Your task to perform on an android device: change keyboard looks Image 0: 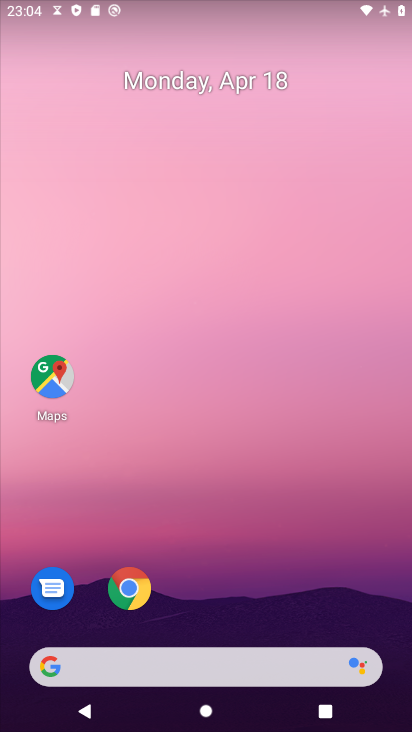
Step 0: drag from (310, 519) to (309, 51)
Your task to perform on an android device: change keyboard looks Image 1: 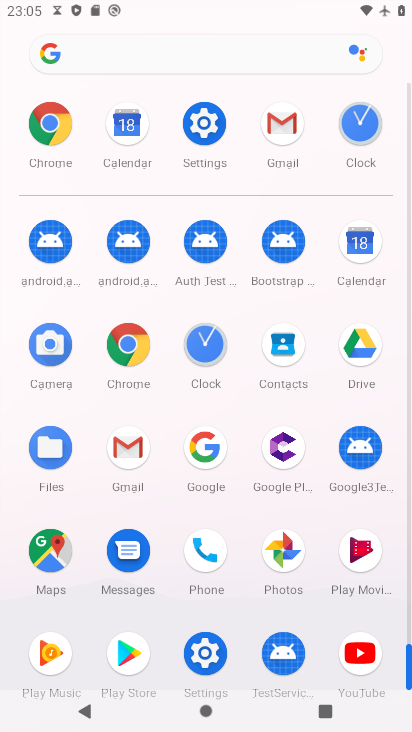
Step 1: drag from (6, 464) to (5, 194)
Your task to perform on an android device: change keyboard looks Image 2: 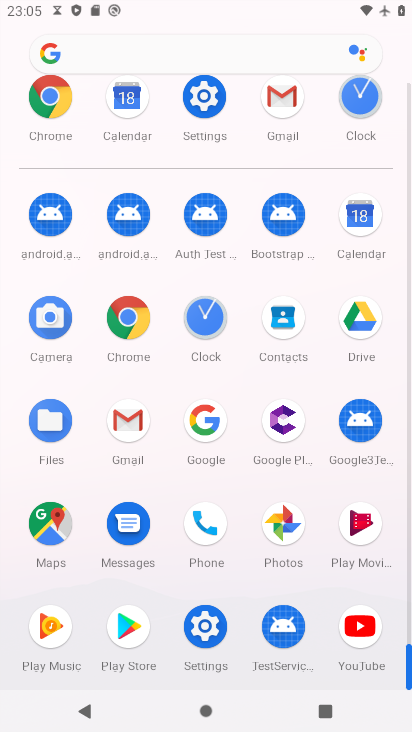
Step 2: drag from (8, 375) to (13, 172)
Your task to perform on an android device: change keyboard looks Image 3: 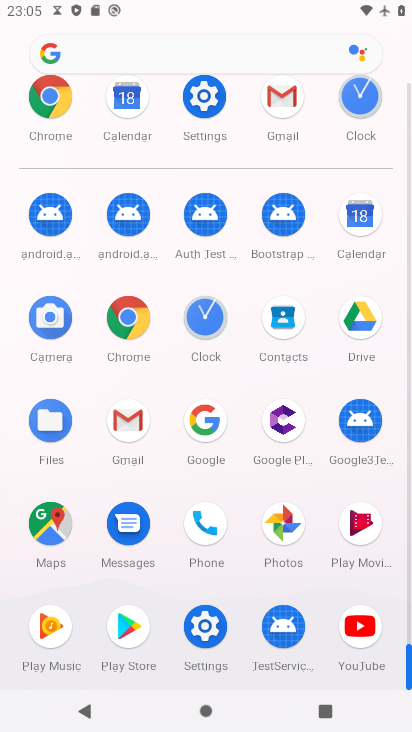
Step 3: drag from (17, 189) to (5, 377)
Your task to perform on an android device: change keyboard looks Image 4: 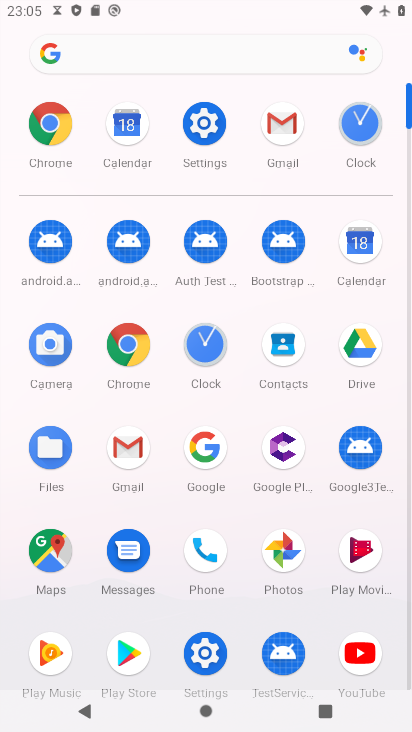
Step 4: drag from (21, 349) to (22, 165)
Your task to perform on an android device: change keyboard looks Image 5: 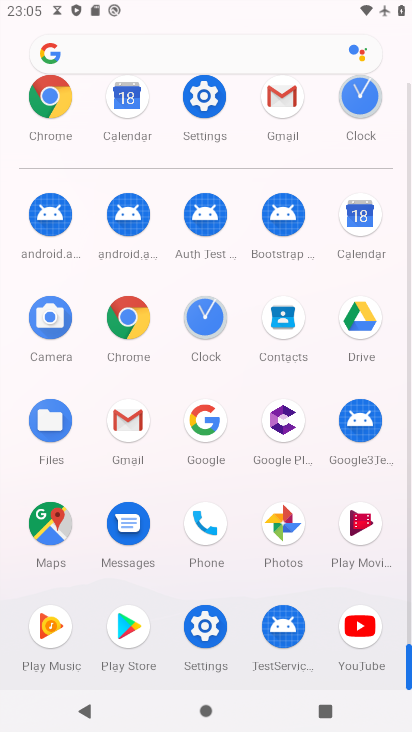
Step 5: drag from (7, 363) to (7, 140)
Your task to perform on an android device: change keyboard looks Image 6: 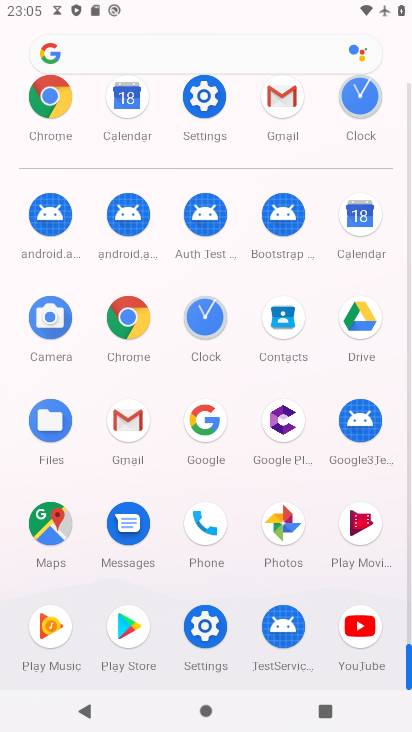
Step 6: drag from (16, 111) to (1, 392)
Your task to perform on an android device: change keyboard looks Image 7: 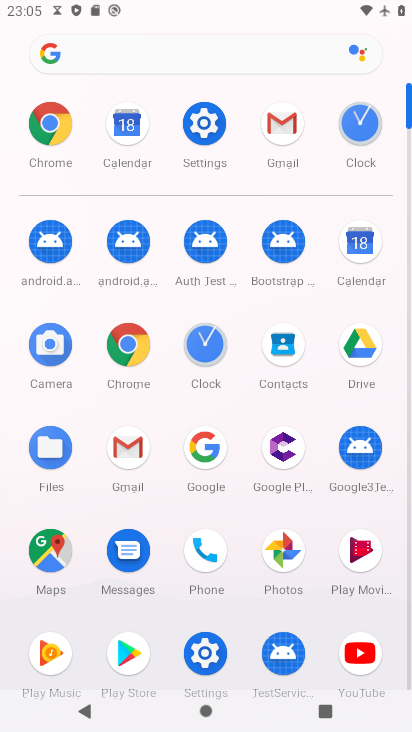
Step 7: click (202, 122)
Your task to perform on an android device: change keyboard looks Image 8: 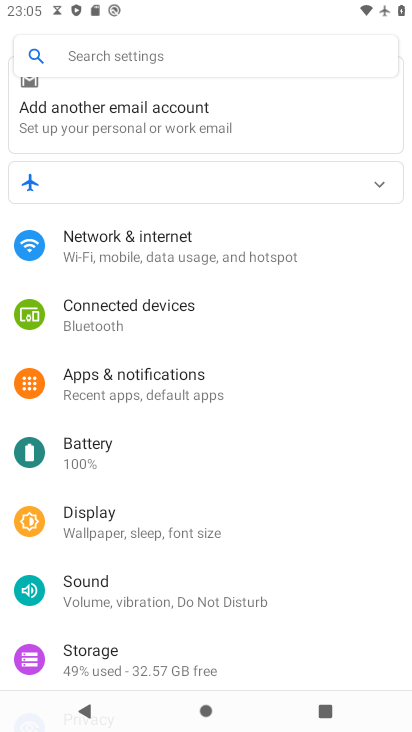
Step 8: drag from (216, 599) to (291, 150)
Your task to perform on an android device: change keyboard looks Image 9: 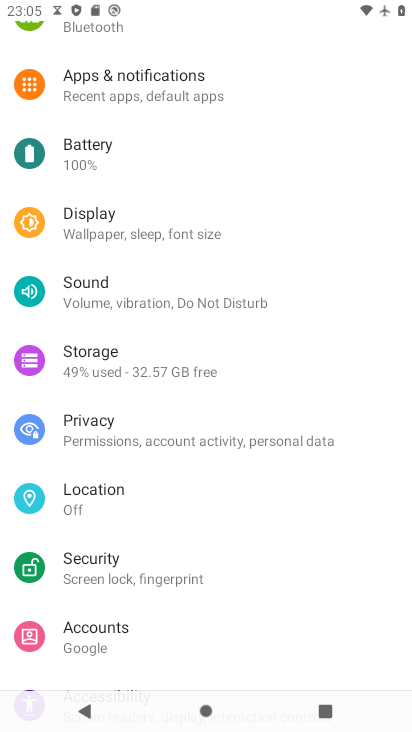
Step 9: drag from (200, 533) to (285, 95)
Your task to perform on an android device: change keyboard looks Image 10: 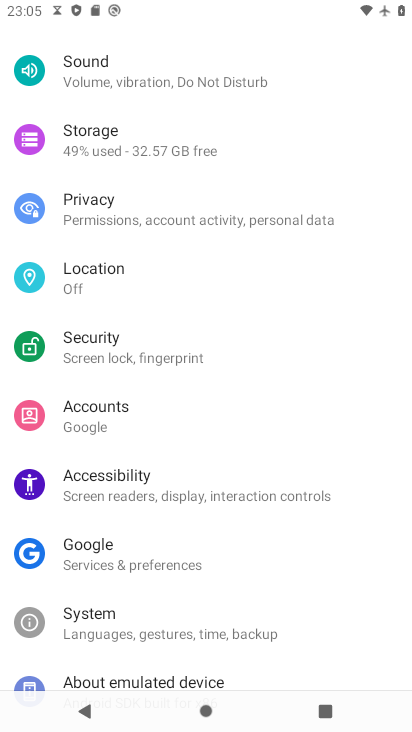
Step 10: drag from (204, 444) to (220, 71)
Your task to perform on an android device: change keyboard looks Image 11: 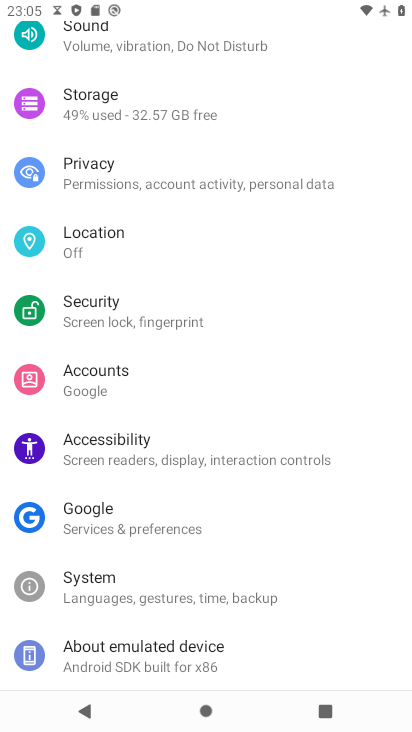
Step 11: drag from (217, 281) to (245, 27)
Your task to perform on an android device: change keyboard looks Image 12: 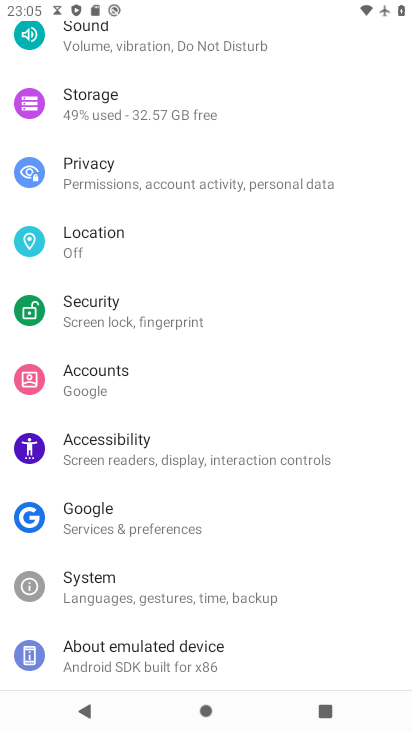
Step 12: drag from (210, 534) to (278, 102)
Your task to perform on an android device: change keyboard looks Image 13: 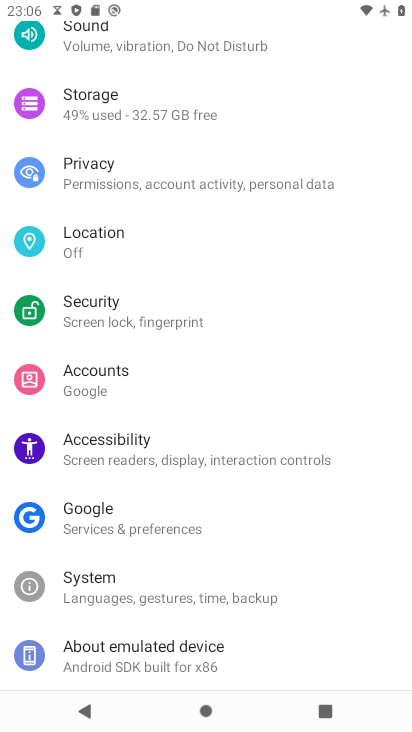
Step 13: click (168, 592)
Your task to perform on an android device: change keyboard looks Image 14: 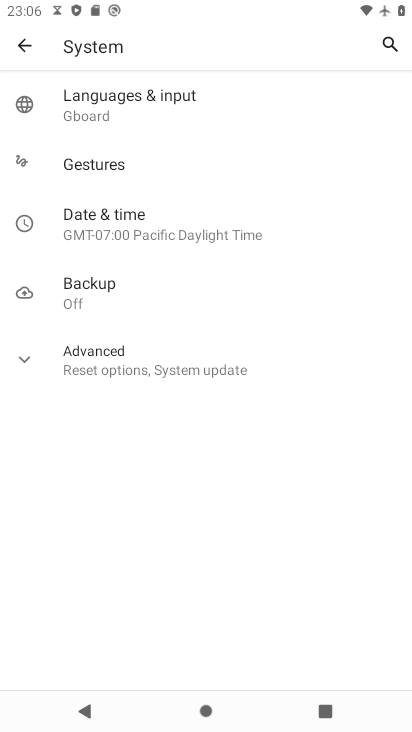
Step 14: click (161, 104)
Your task to perform on an android device: change keyboard looks Image 15: 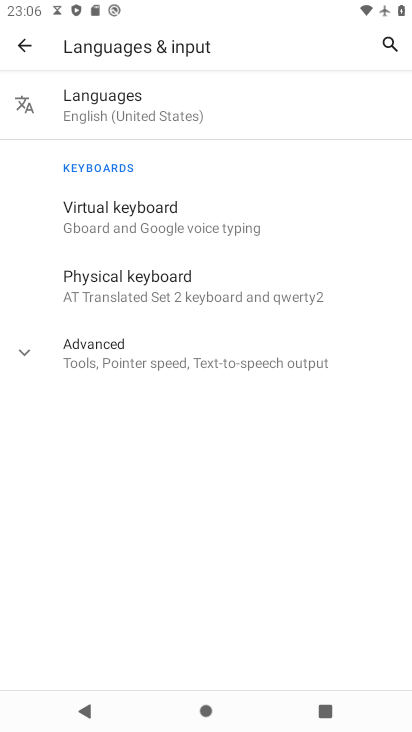
Step 15: click (171, 211)
Your task to perform on an android device: change keyboard looks Image 16: 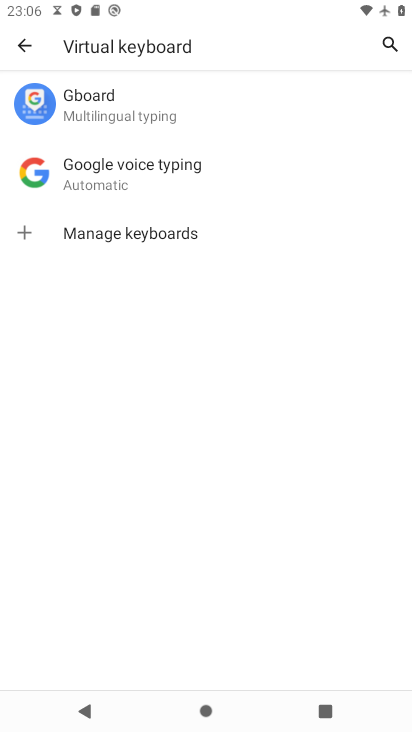
Step 16: click (167, 108)
Your task to perform on an android device: change keyboard looks Image 17: 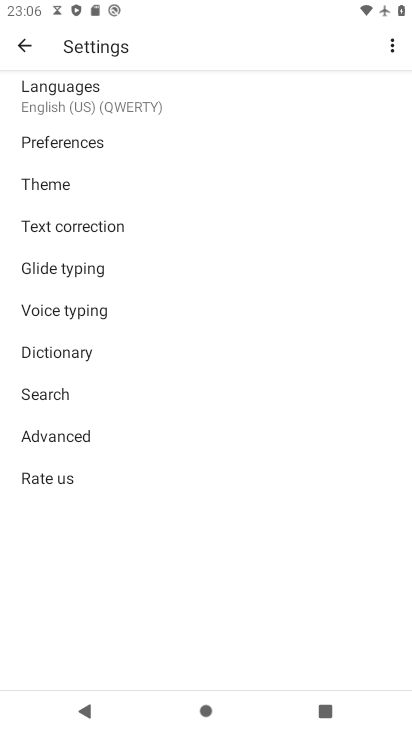
Step 17: click (120, 191)
Your task to perform on an android device: change keyboard looks Image 18: 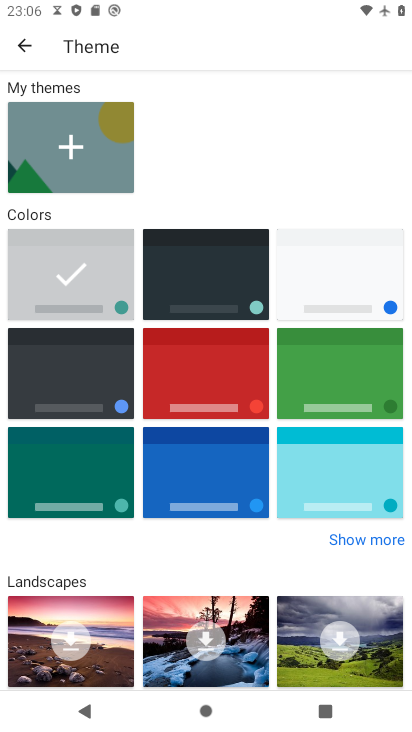
Step 18: click (317, 464)
Your task to perform on an android device: change keyboard looks Image 19: 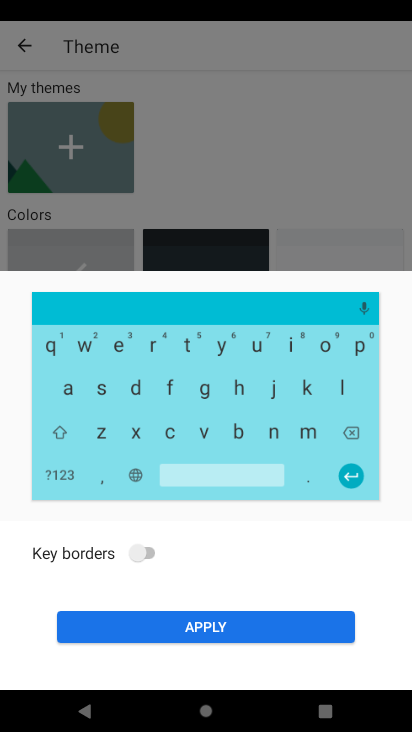
Step 19: click (239, 630)
Your task to perform on an android device: change keyboard looks Image 20: 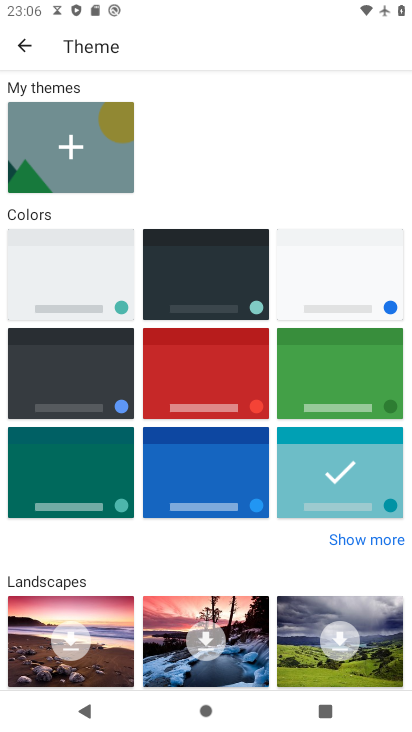
Step 20: task complete